Your task to perform on an android device: Open Maps and search for coffee Image 0: 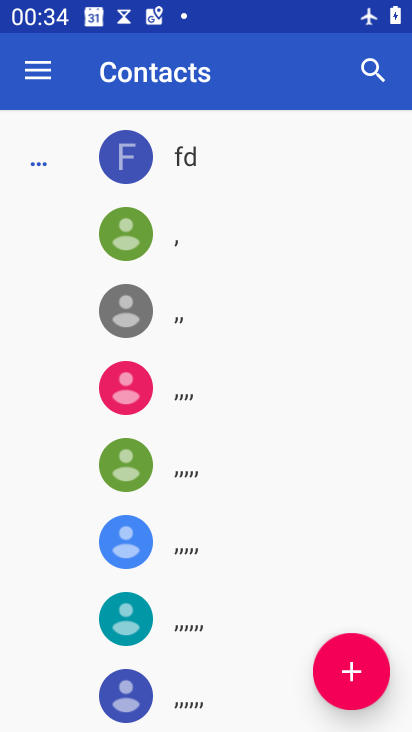
Step 0: press home button
Your task to perform on an android device: Open Maps and search for coffee Image 1: 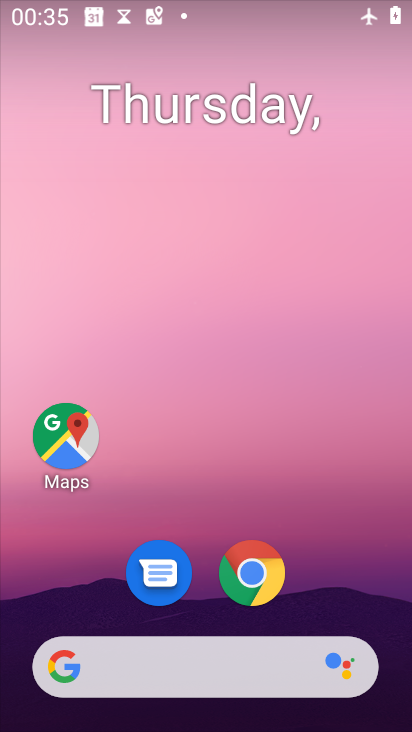
Step 1: click (80, 440)
Your task to perform on an android device: Open Maps and search for coffee Image 2: 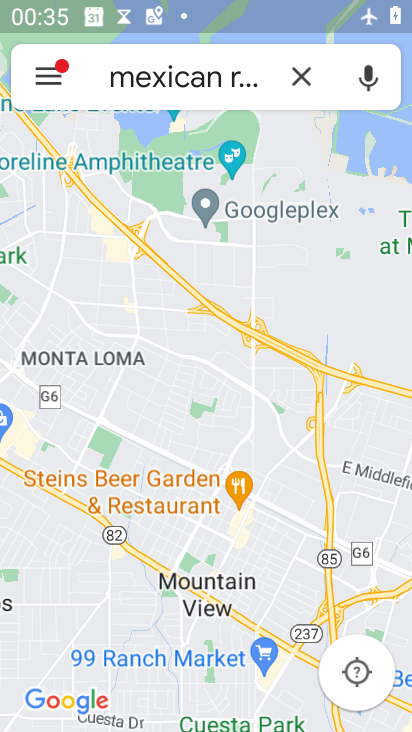
Step 2: click (301, 70)
Your task to perform on an android device: Open Maps and search for coffee Image 3: 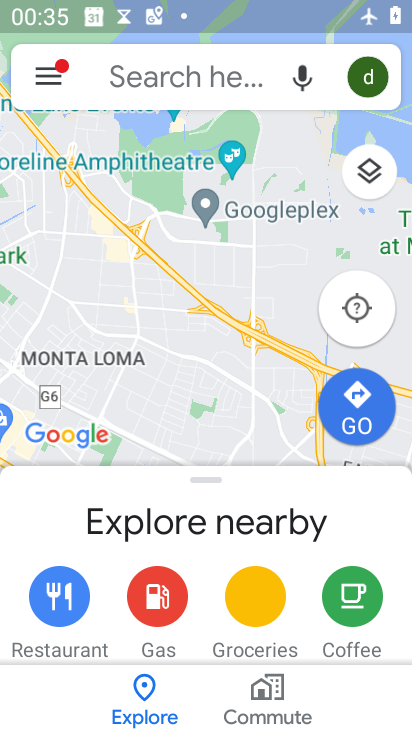
Step 3: click (181, 74)
Your task to perform on an android device: Open Maps and search for coffee Image 4: 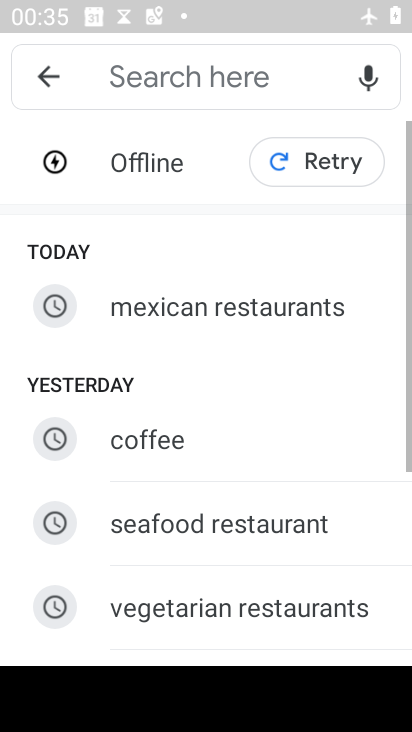
Step 4: click (163, 444)
Your task to perform on an android device: Open Maps and search for coffee Image 5: 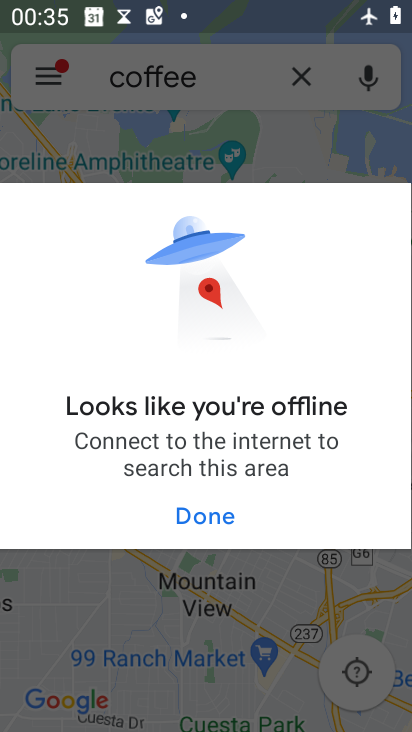
Step 5: task complete